Your task to perform on an android device: open app "Google Calendar" Image 0: 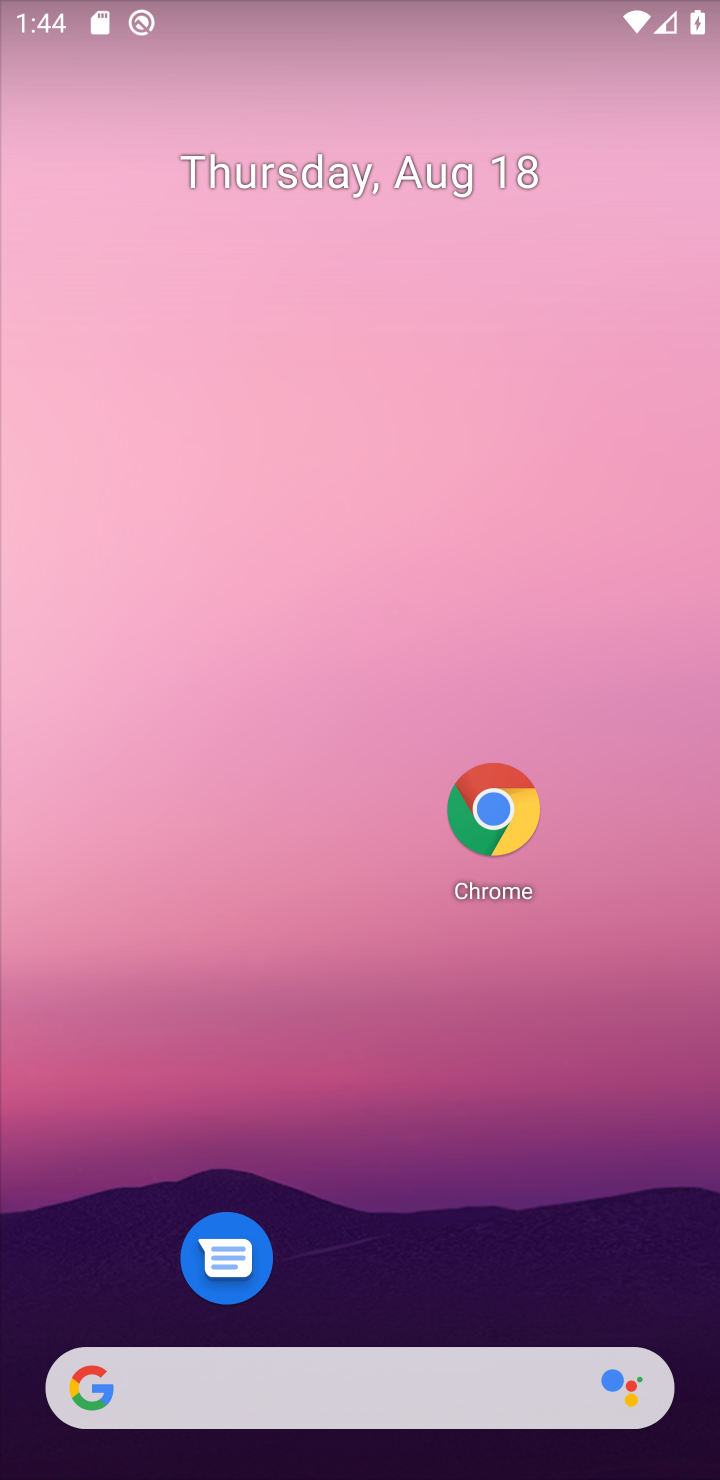
Step 0: drag from (342, 808) to (359, 596)
Your task to perform on an android device: open app "Google Calendar" Image 1: 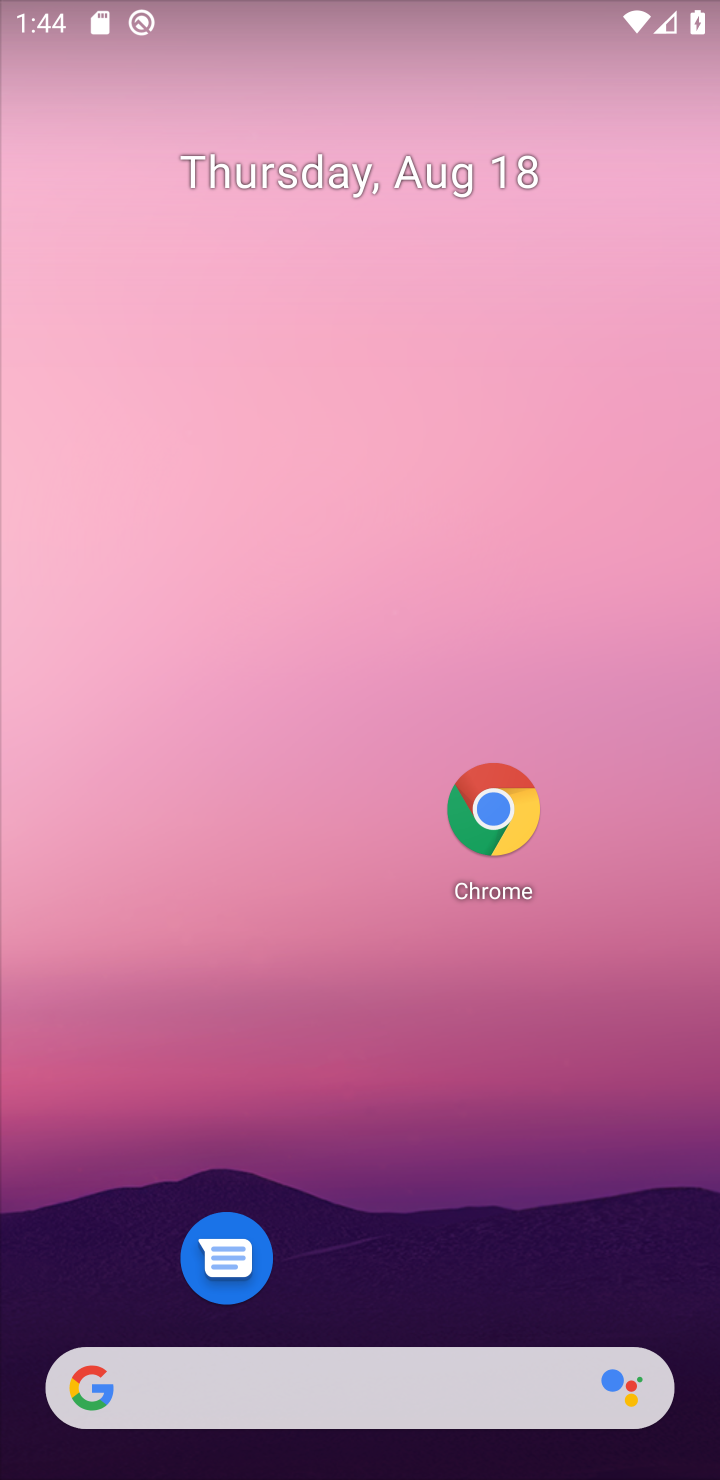
Step 1: drag from (404, 604) to (414, 66)
Your task to perform on an android device: open app "Google Calendar" Image 2: 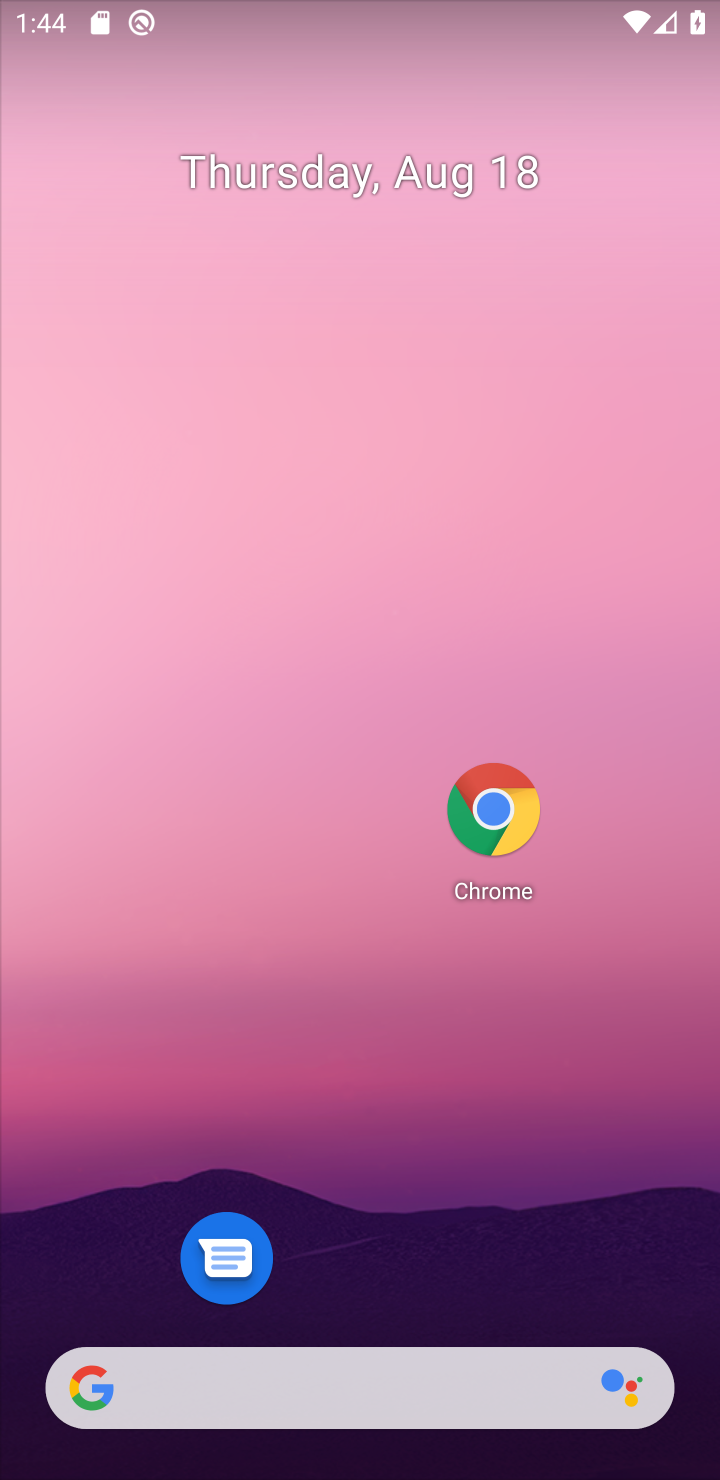
Step 2: drag from (298, 1285) to (296, 152)
Your task to perform on an android device: open app "Google Calendar" Image 3: 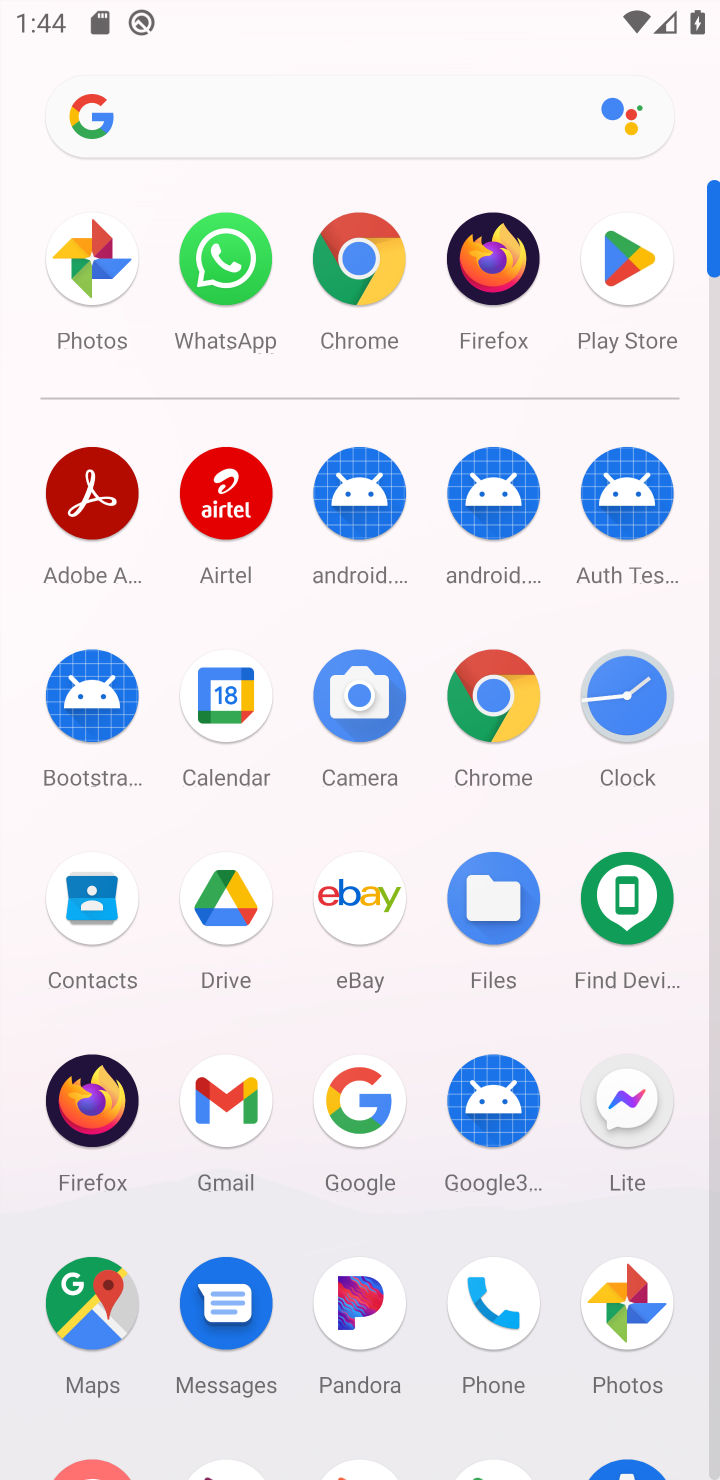
Step 3: click (626, 254)
Your task to perform on an android device: open app "Google Calendar" Image 4: 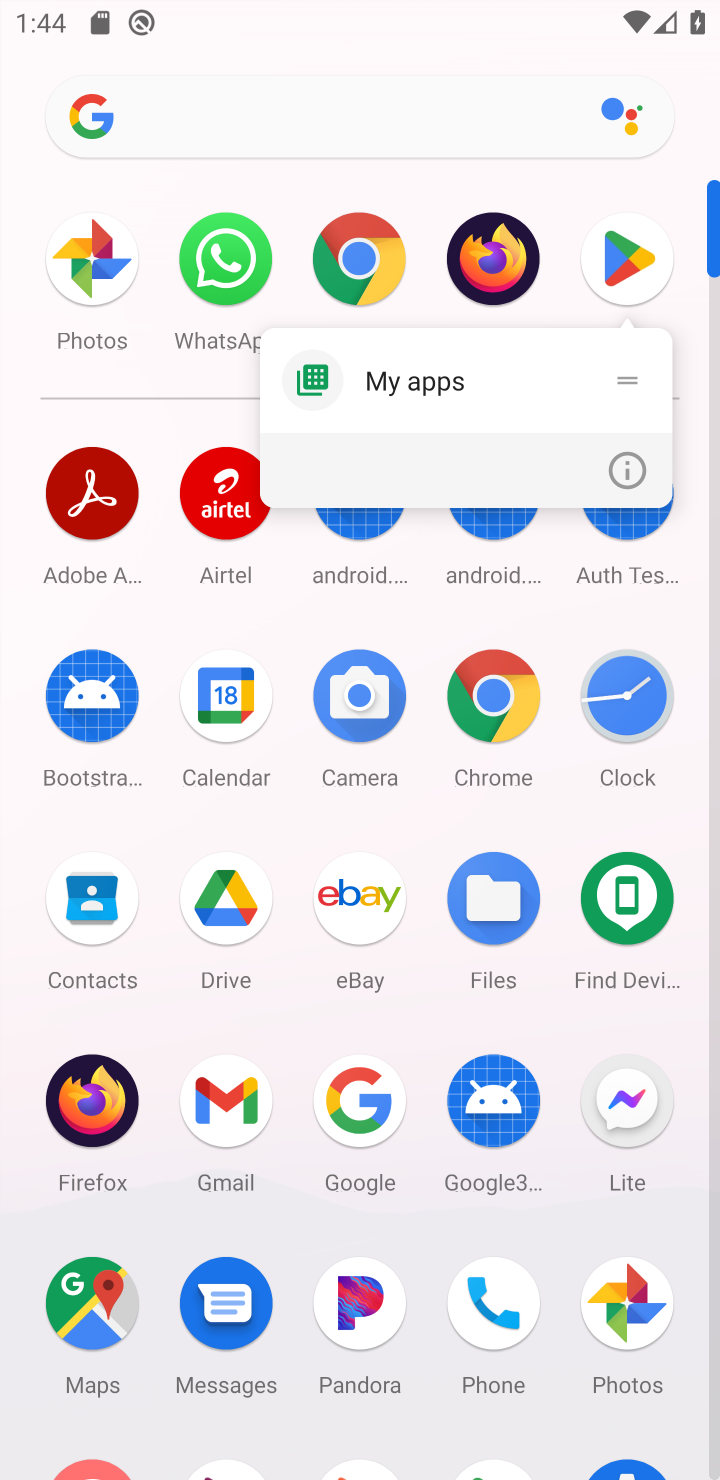
Step 4: click (626, 254)
Your task to perform on an android device: open app "Google Calendar" Image 5: 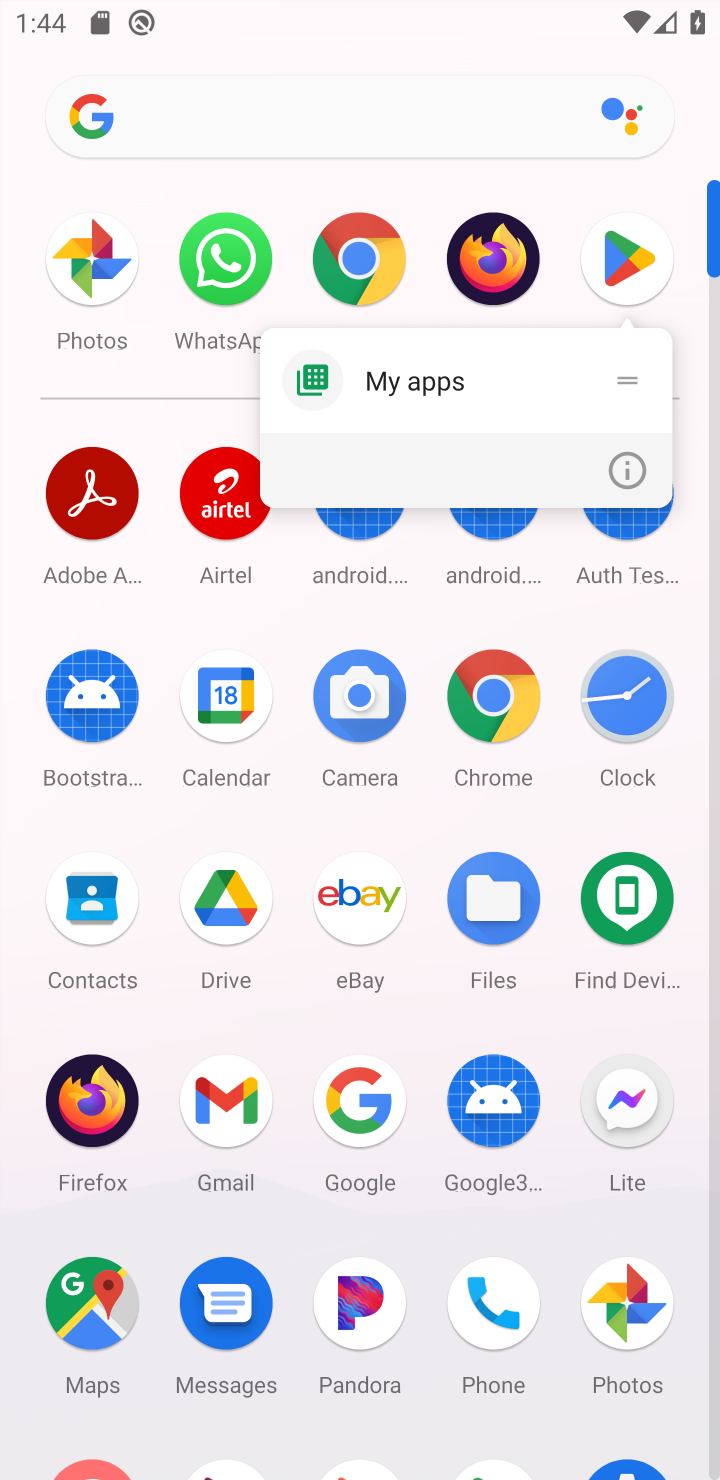
Step 5: click (626, 263)
Your task to perform on an android device: open app "Google Calendar" Image 6: 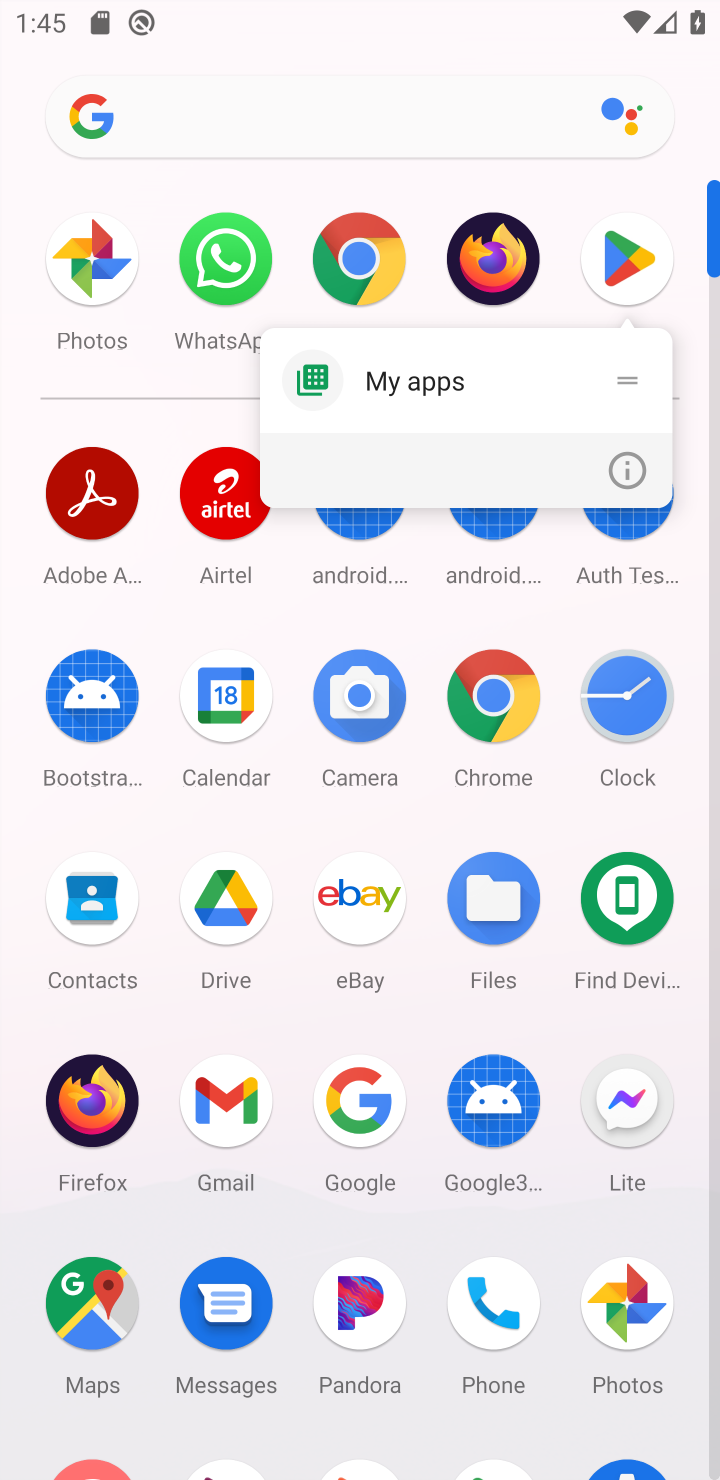
Step 6: click (609, 245)
Your task to perform on an android device: open app "Google Calendar" Image 7: 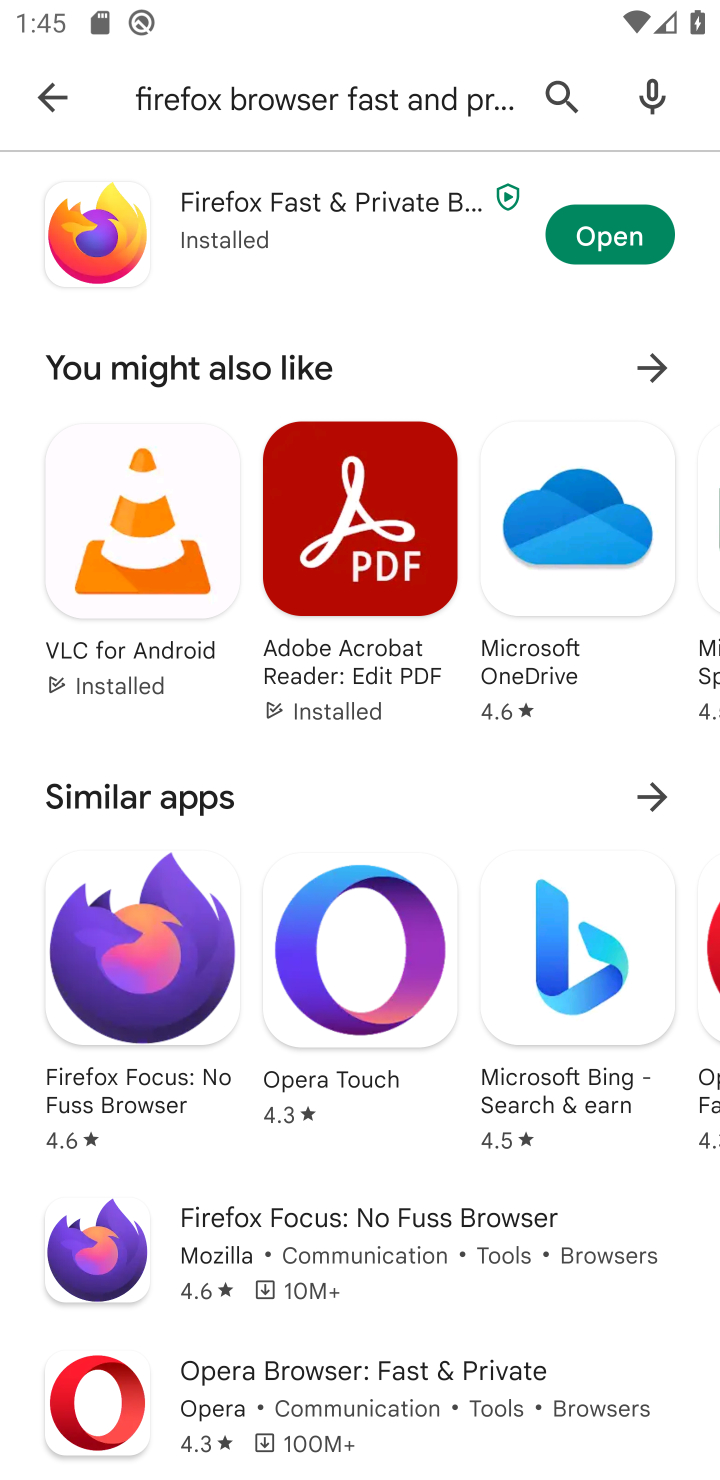
Step 7: click (55, 77)
Your task to perform on an android device: open app "Google Calendar" Image 8: 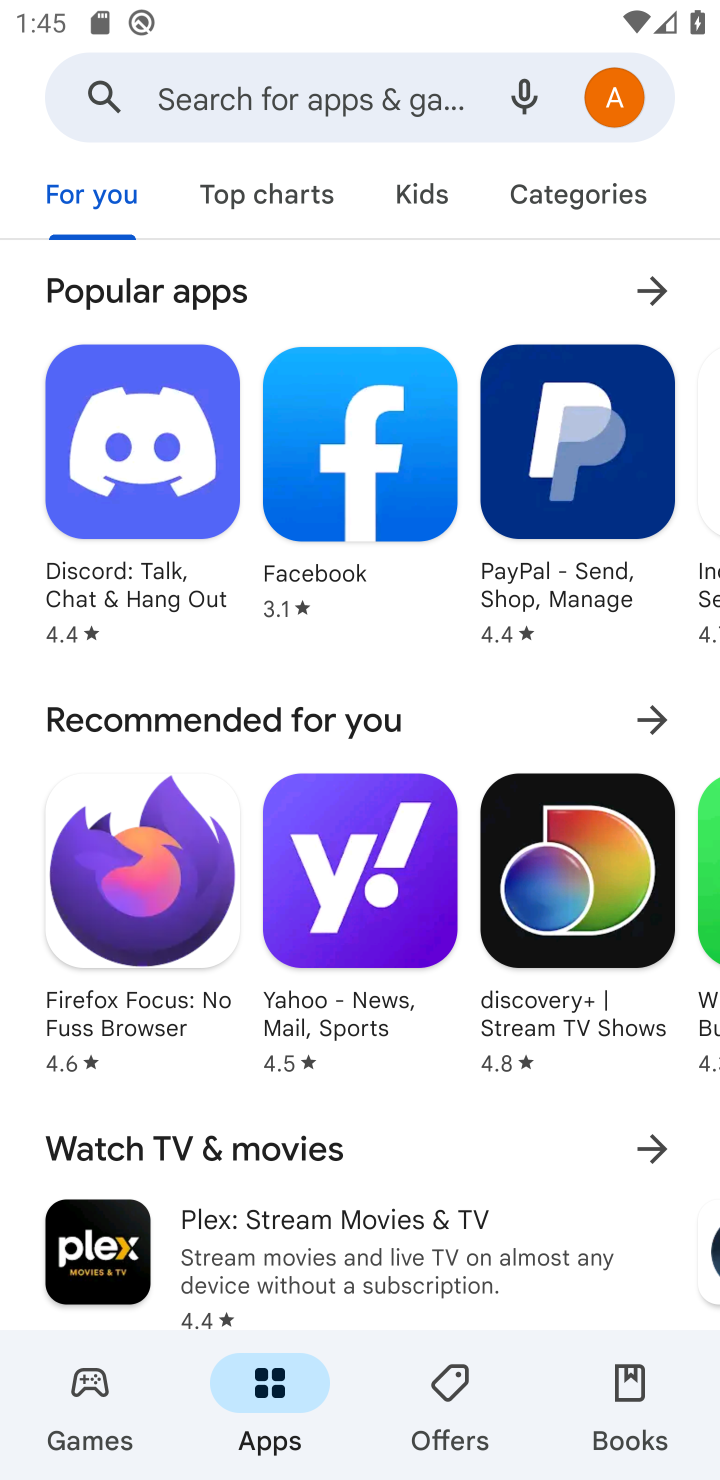
Step 8: click (437, 68)
Your task to perform on an android device: open app "Google Calendar" Image 9: 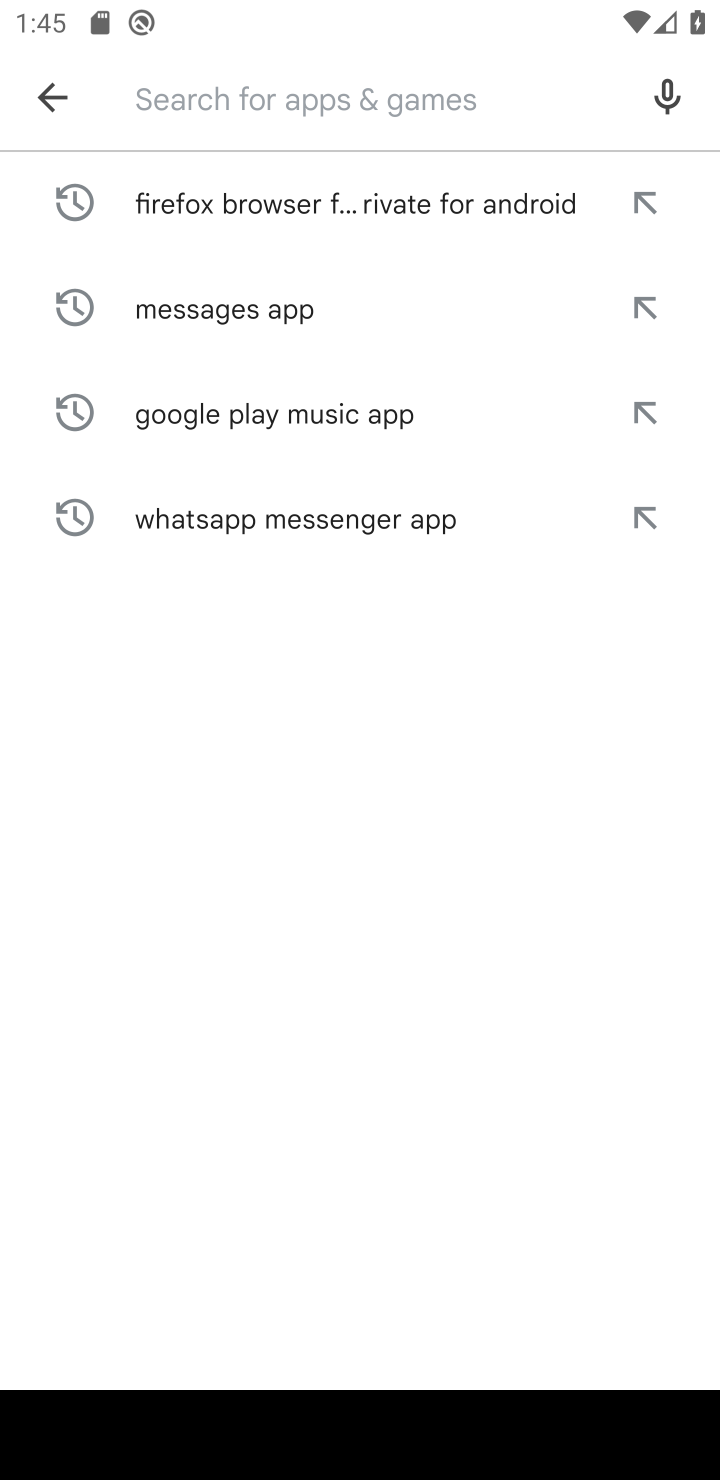
Step 9: type "Google Calendar "
Your task to perform on an android device: open app "Google Calendar" Image 10: 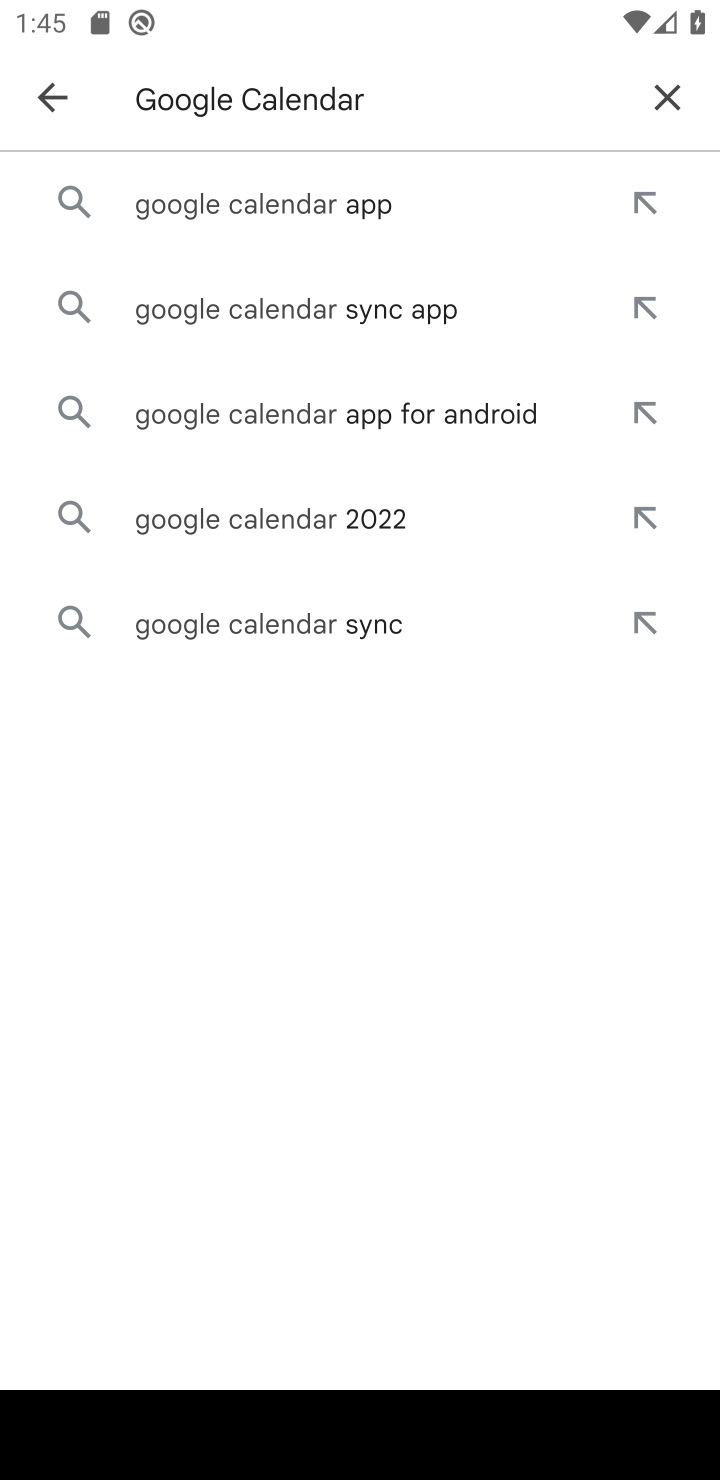
Step 10: click (354, 182)
Your task to perform on an android device: open app "Google Calendar" Image 11: 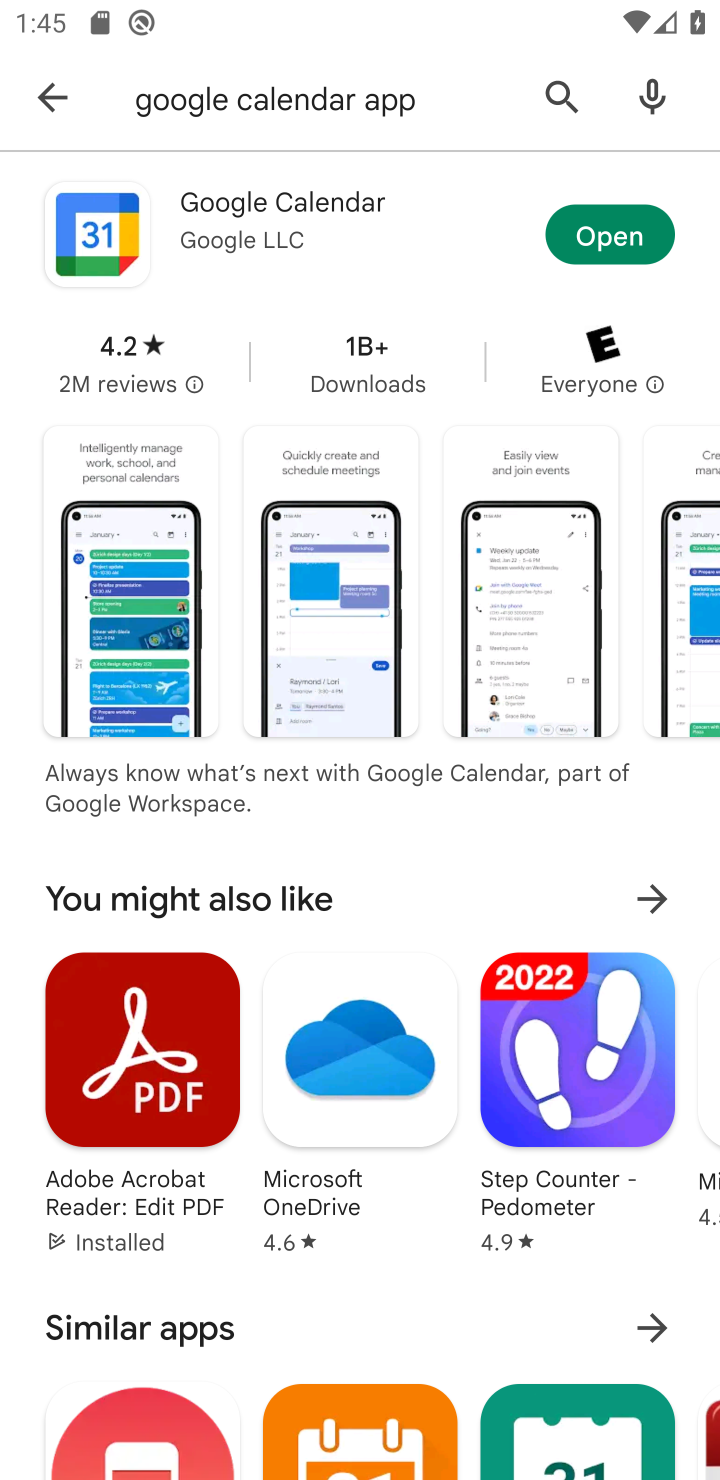
Step 11: click (627, 206)
Your task to perform on an android device: open app "Google Calendar" Image 12: 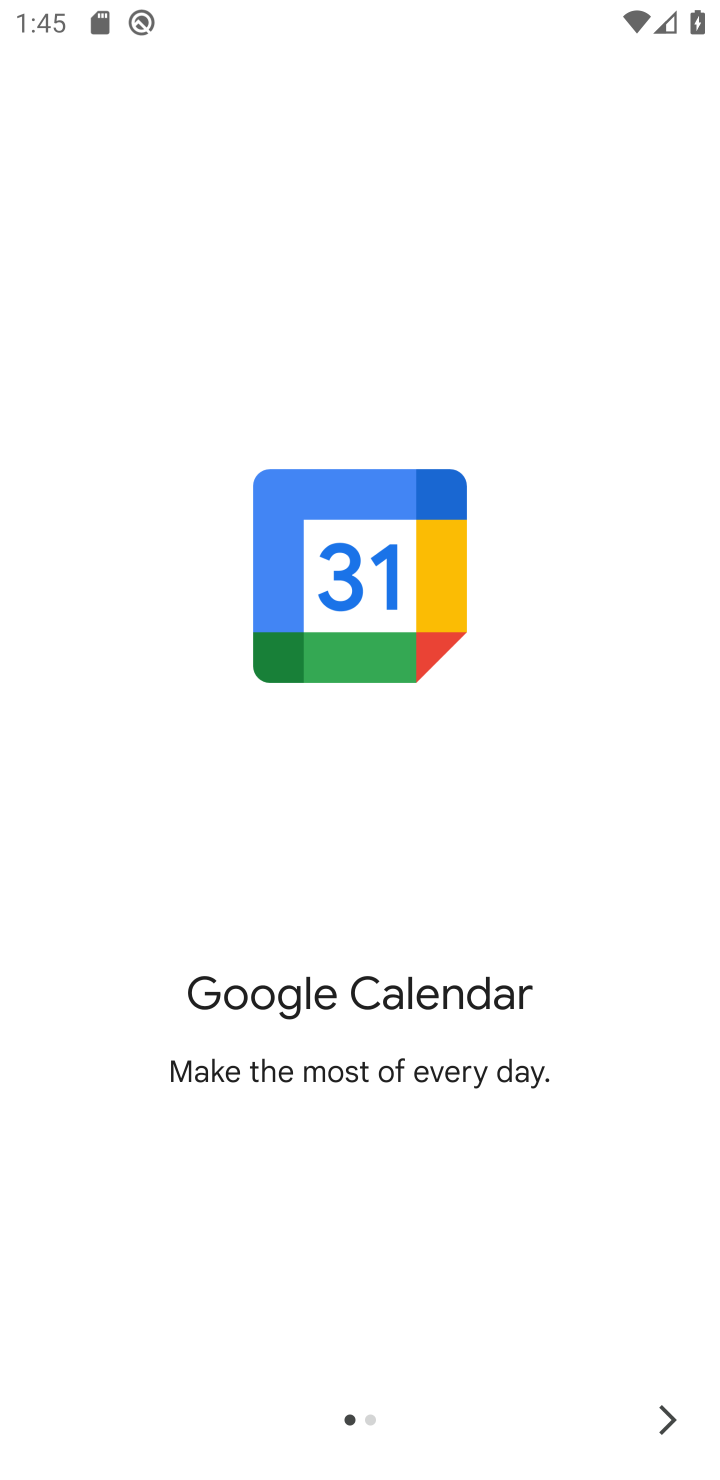
Step 12: task complete